Your task to perform on an android device: open chrome privacy settings Image 0: 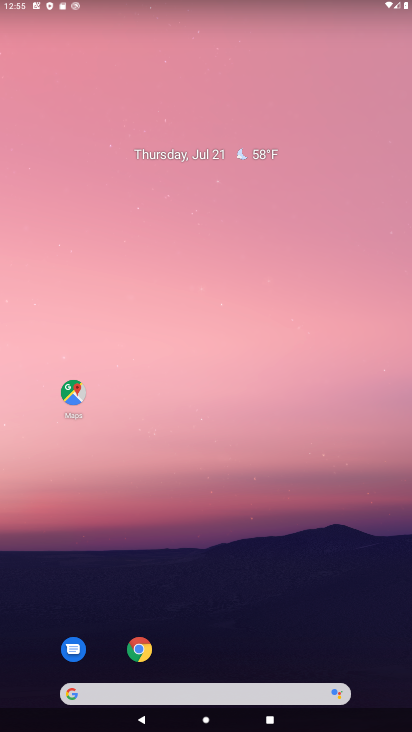
Step 0: click (154, 648)
Your task to perform on an android device: open chrome privacy settings Image 1: 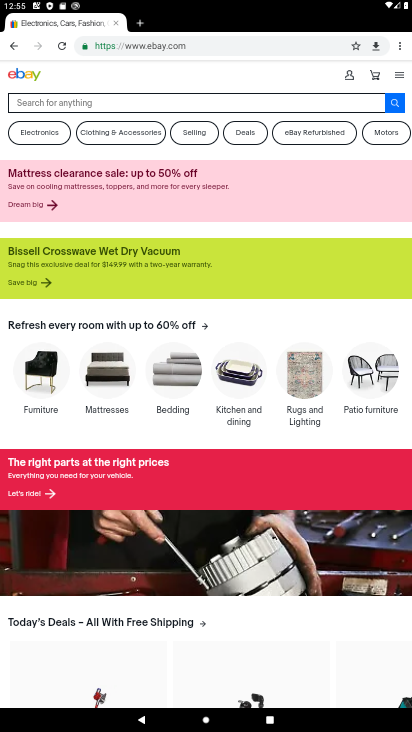
Step 1: task complete